Your task to perform on an android device: turn on translation in the chrome app Image 0: 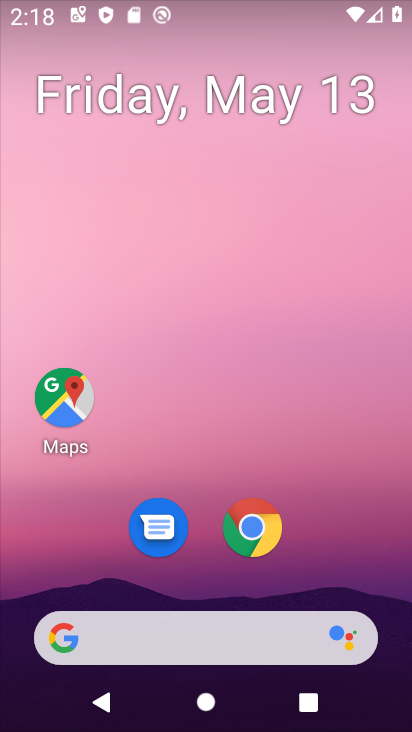
Step 0: click (251, 531)
Your task to perform on an android device: turn on translation in the chrome app Image 1: 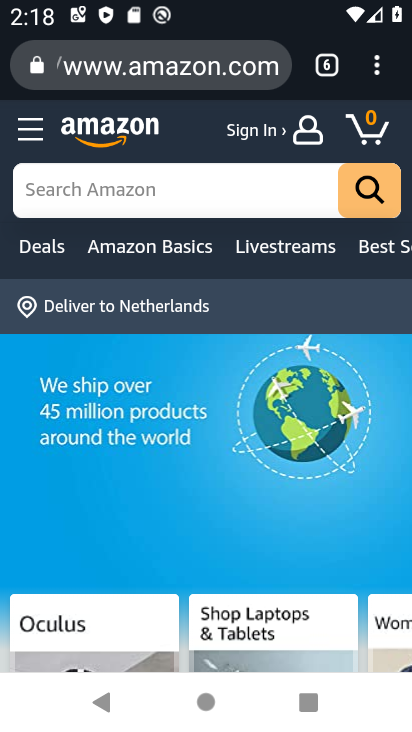
Step 1: click (389, 55)
Your task to perform on an android device: turn on translation in the chrome app Image 2: 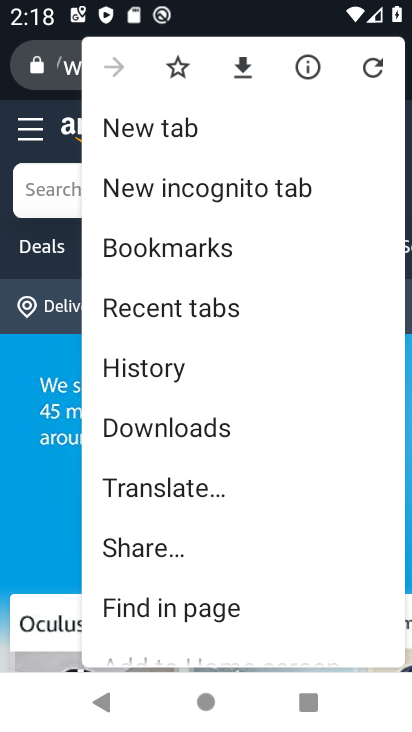
Step 2: drag from (180, 601) to (173, 273)
Your task to perform on an android device: turn on translation in the chrome app Image 3: 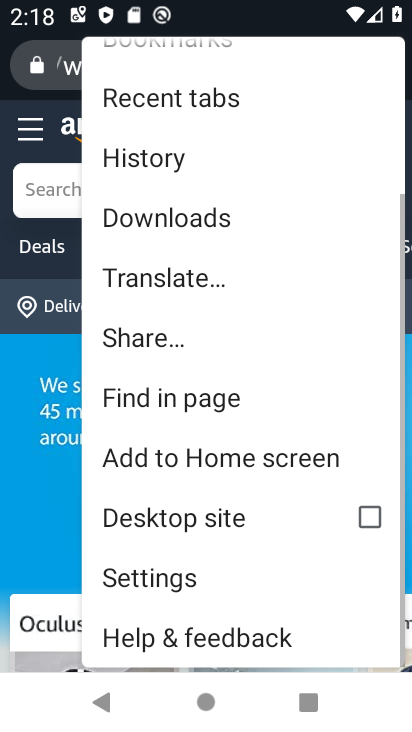
Step 3: click (180, 588)
Your task to perform on an android device: turn on translation in the chrome app Image 4: 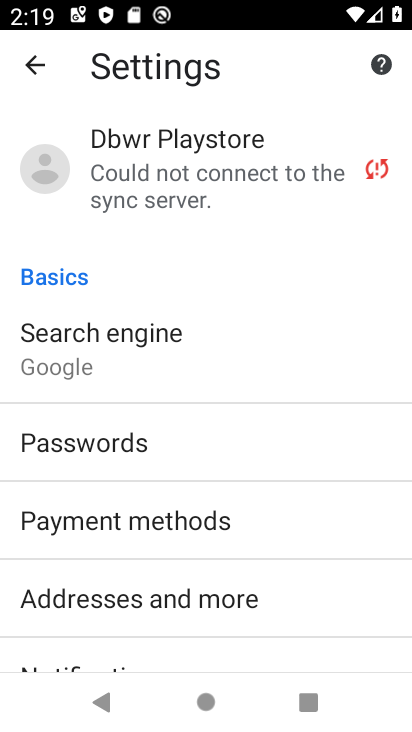
Step 4: drag from (111, 644) to (187, 105)
Your task to perform on an android device: turn on translation in the chrome app Image 5: 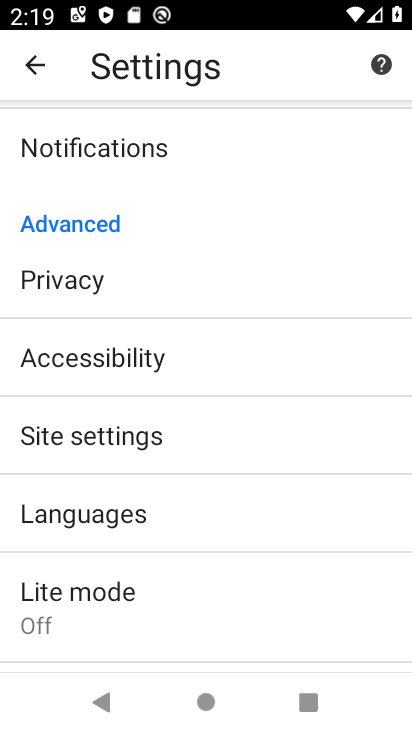
Step 5: click (87, 482)
Your task to perform on an android device: turn on translation in the chrome app Image 6: 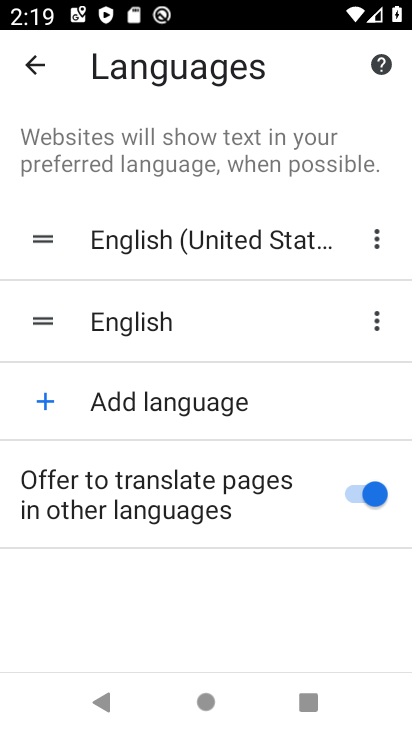
Step 6: task complete